Your task to perform on an android device: toggle location history Image 0: 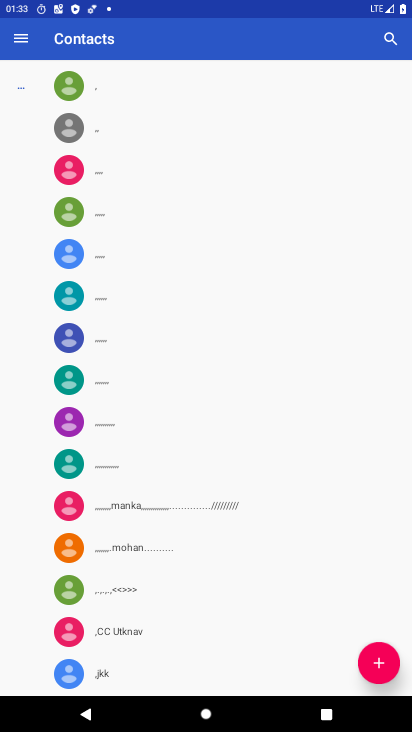
Step 0: press home button
Your task to perform on an android device: toggle location history Image 1: 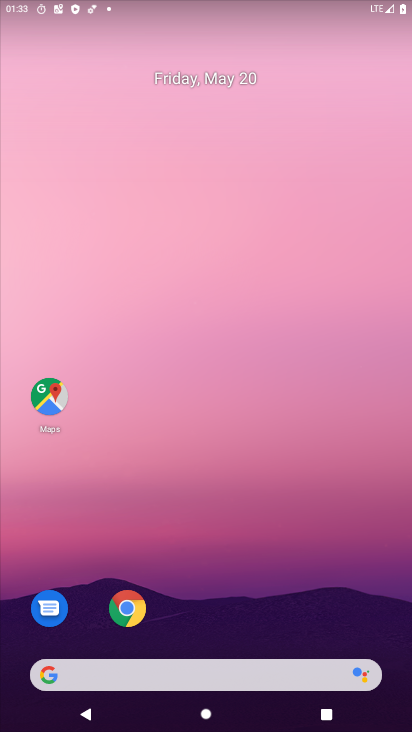
Step 1: drag from (355, 607) to (330, 88)
Your task to perform on an android device: toggle location history Image 2: 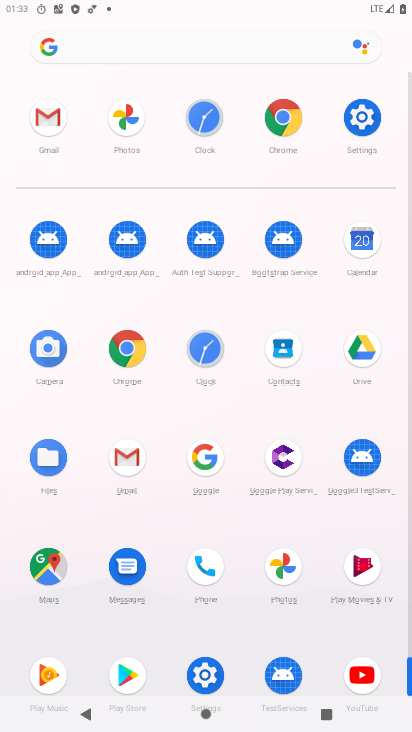
Step 2: click (207, 666)
Your task to perform on an android device: toggle location history Image 3: 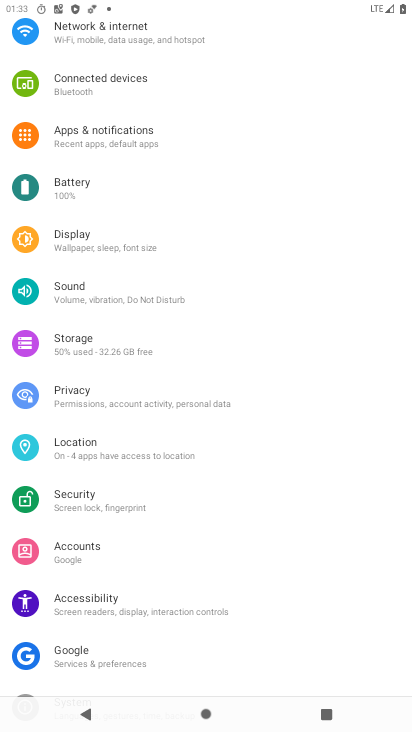
Step 3: click (146, 444)
Your task to perform on an android device: toggle location history Image 4: 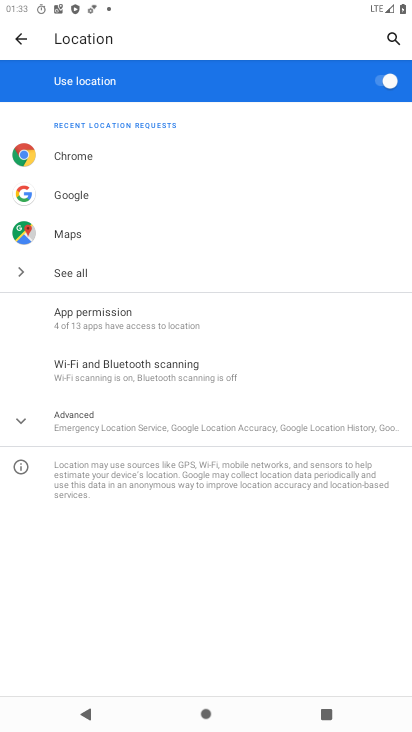
Step 4: click (157, 420)
Your task to perform on an android device: toggle location history Image 5: 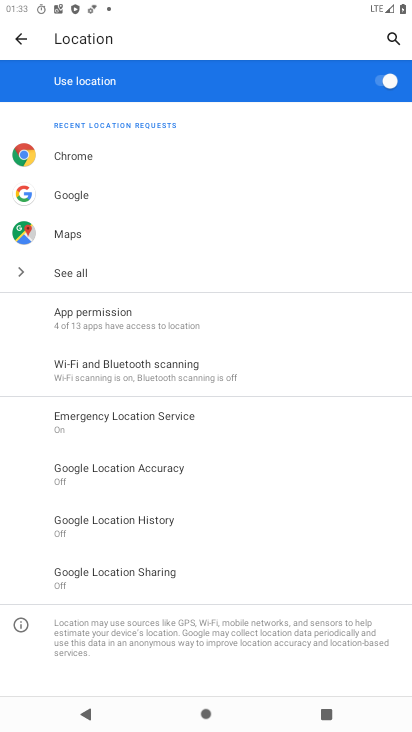
Step 5: click (146, 523)
Your task to perform on an android device: toggle location history Image 6: 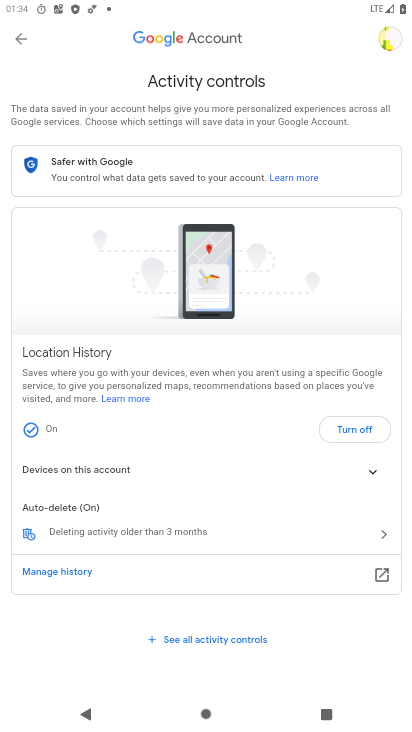
Step 6: click (352, 433)
Your task to perform on an android device: toggle location history Image 7: 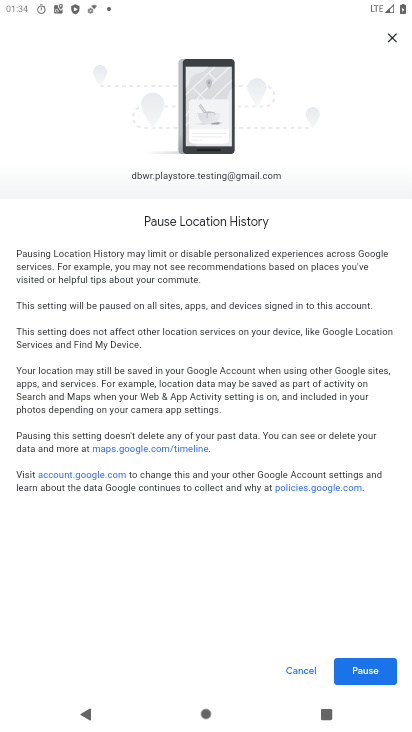
Step 7: click (372, 674)
Your task to perform on an android device: toggle location history Image 8: 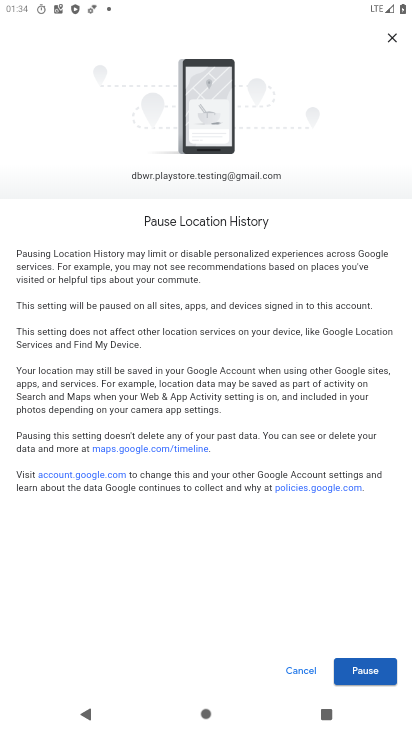
Step 8: click (372, 674)
Your task to perform on an android device: toggle location history Image 9: 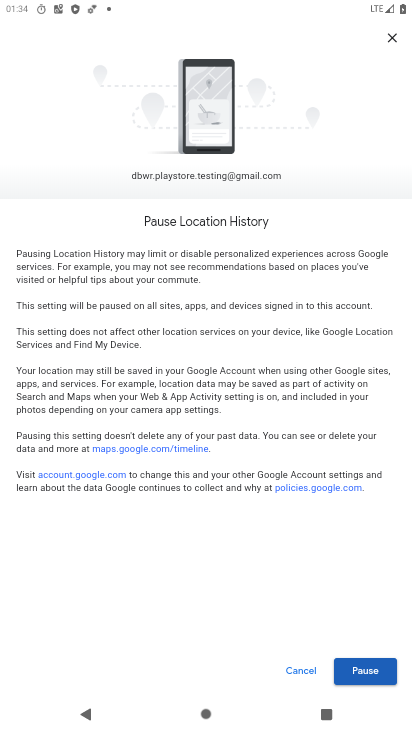
Step 9: click (372, 674)
Your task to perform on an android device: toggle location history Image 10: 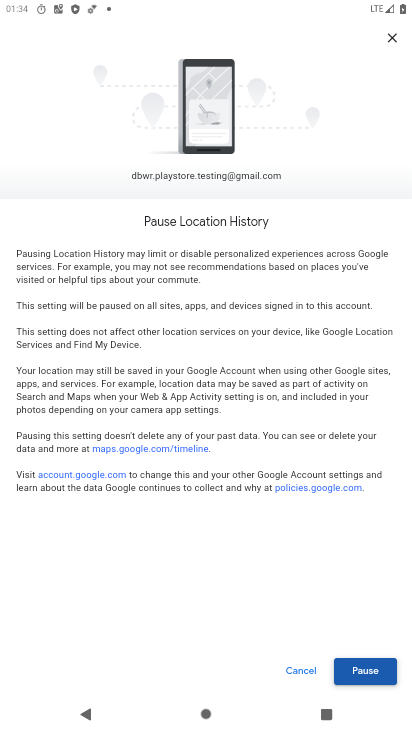
Step 10: click (372, 674)
Your task to perform on an android device: toggle location history Image 11: 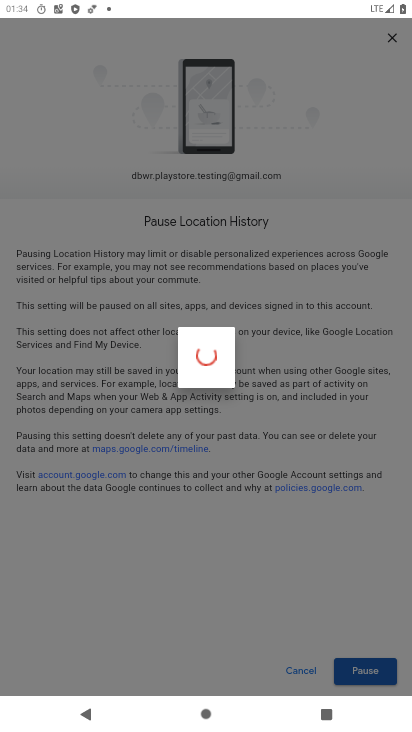
Step 11: click (364, 662)
Your task to perform on an android device: toggle location history Image 12: 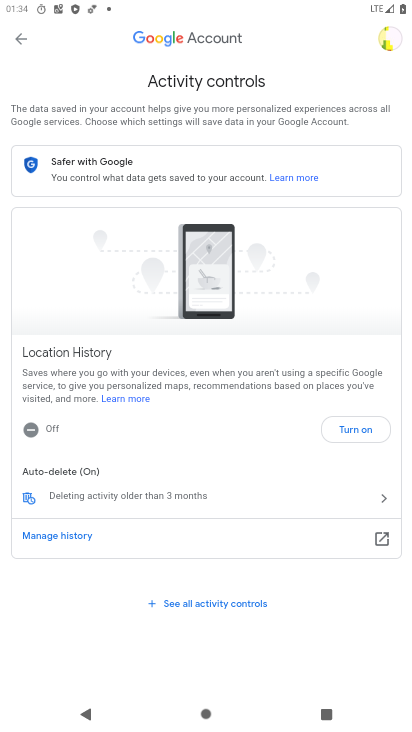
Step 12: task complete